Your task to perform on an android device: What's the weather today? Image 0: 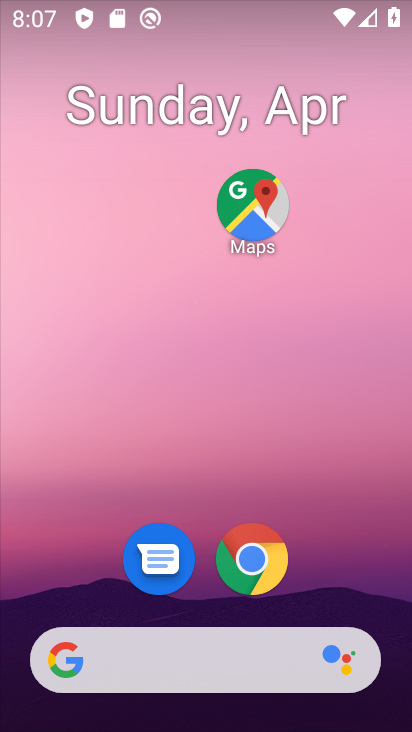
Step 0: click (179, 644)
Your task to perform on an android device: What's the weather today? Image 1: 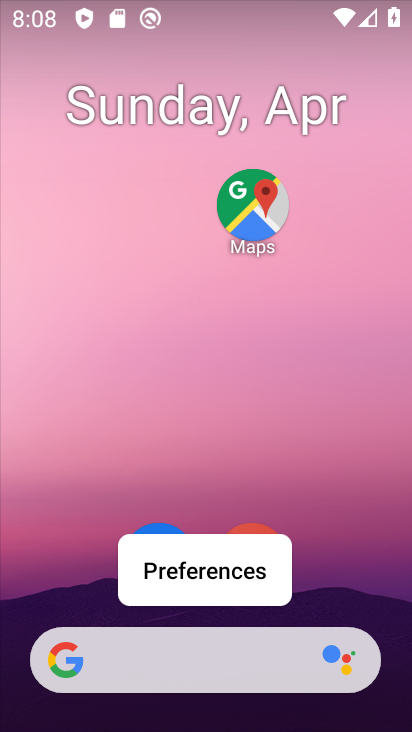
Step 1: click (176, 661)
Your task to perform on an android device: What's the weather today? Image 2: 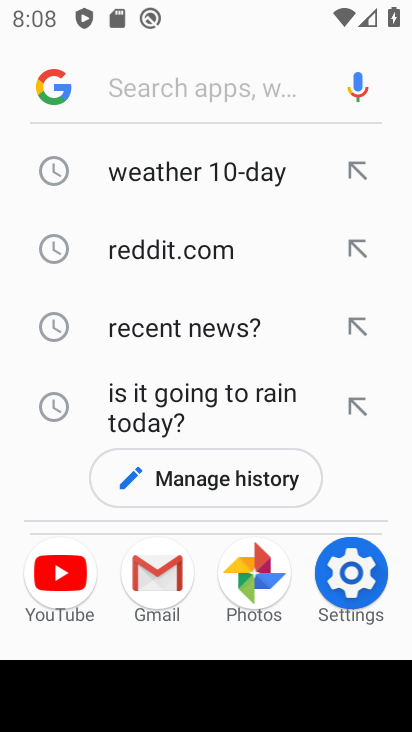
Step 2: click (176, 184)
Your task to perform on an android device: What's the weather today? Image 3: 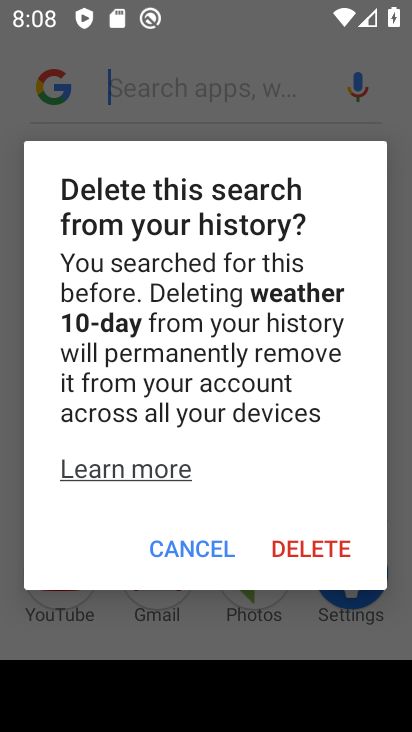
Step 3: click (191, 562)
Your task to perform on an android device: What's the weather today? Image 4: 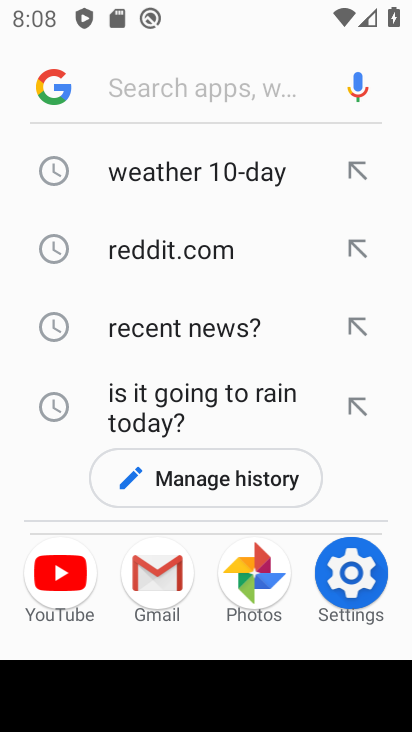
Step 4: click (183, 162)
Your task to perform on an android device: What's the weather today? Image 5: 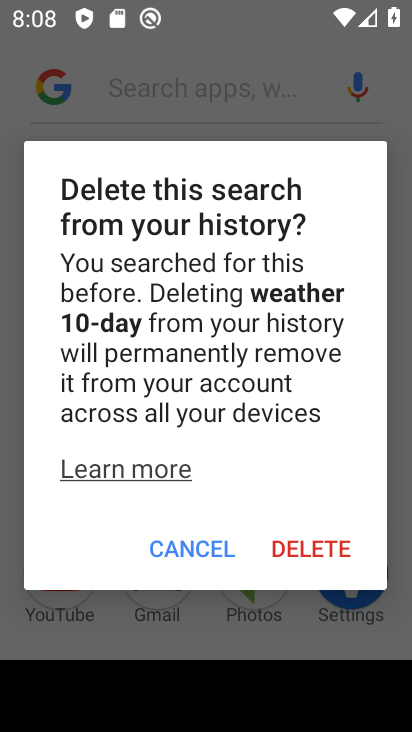
Step 5: click (209, 535)
Your task to perform on an android device: What's the weather today? Image 6: 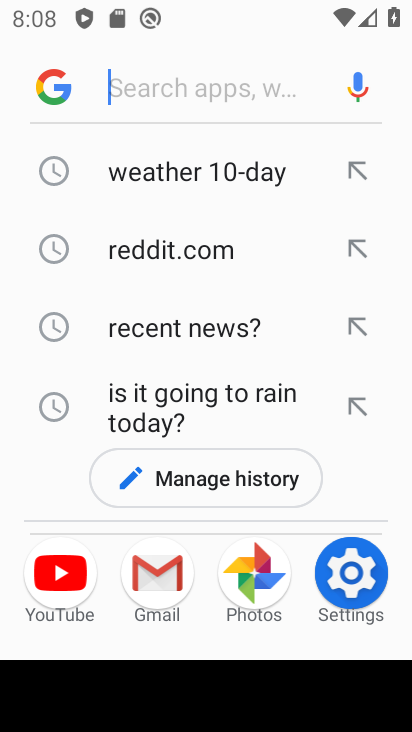
Step 6: click (213, 75)
Your task to perform on an android device: What's the weather today? Image 7: 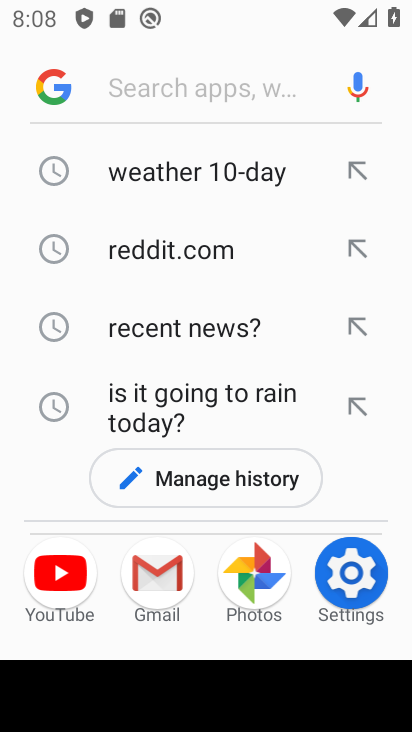
Step 7: type "weather"
Your task to perform on an android device: What's the weather today? Image 8: 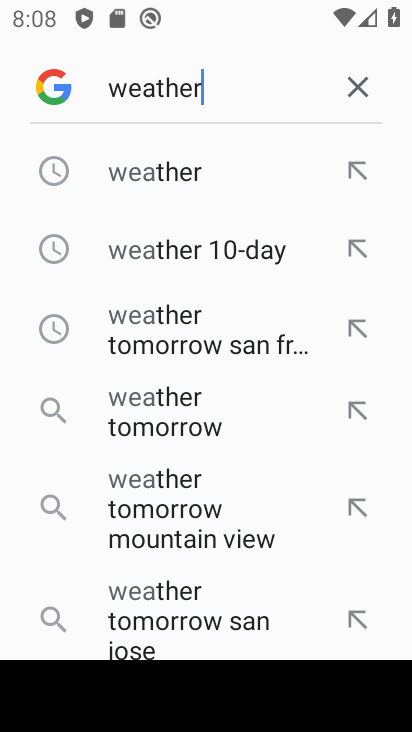
Step 8: type ""
Your task to perform on an android device: What's the weather today? Image 9: 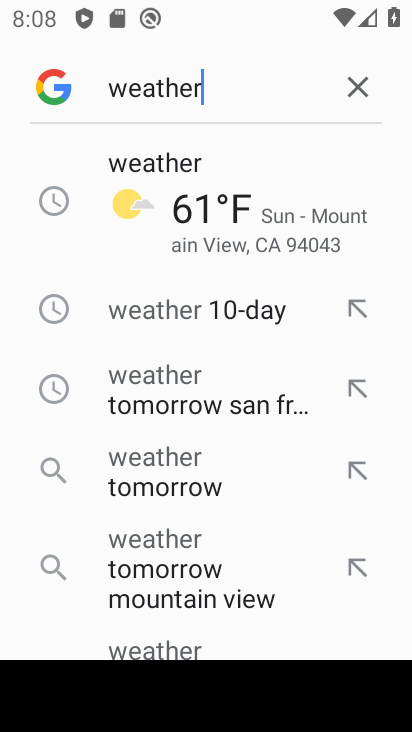
Step 9: click (160, 172)
Your task to perform on an android device: What's the weather today? Image 10: 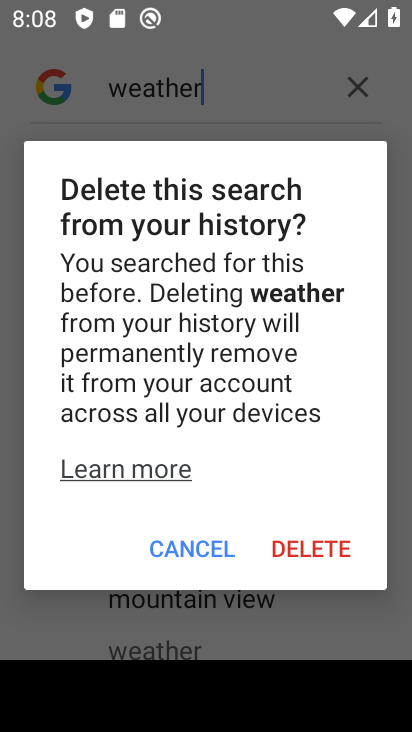
Step 10: click (210, 546)
Your task to perform on an android device: What's the weather today? Image 11: 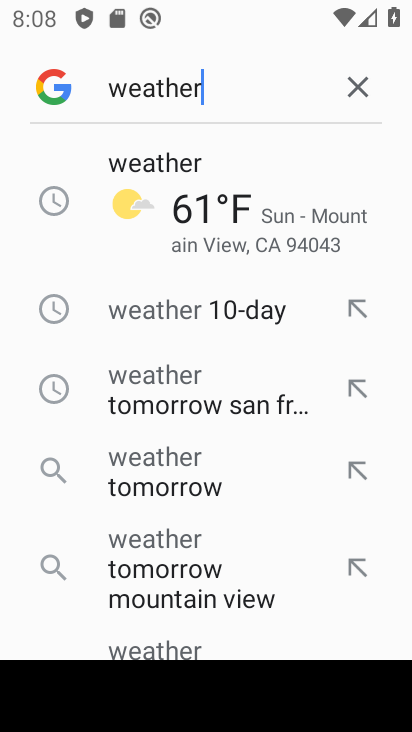
Step 11: click (257, 49)
Your task to perform on an android device: What's the weather today? Image 12: 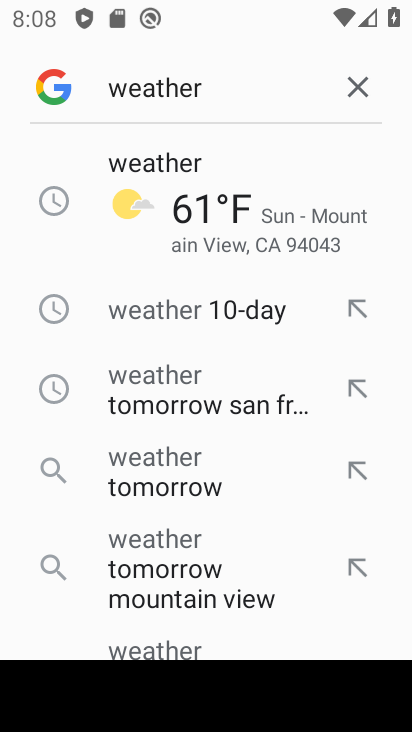
Step 12: click (153, 393)
Your task to perform on an android device: What's the weather today? Image 13: 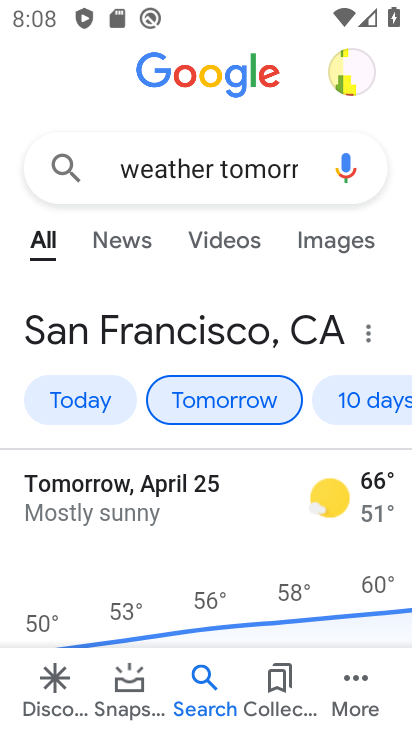
Step 13: task complete